Your task to perform on an android device: change text size in settings app Image 0: 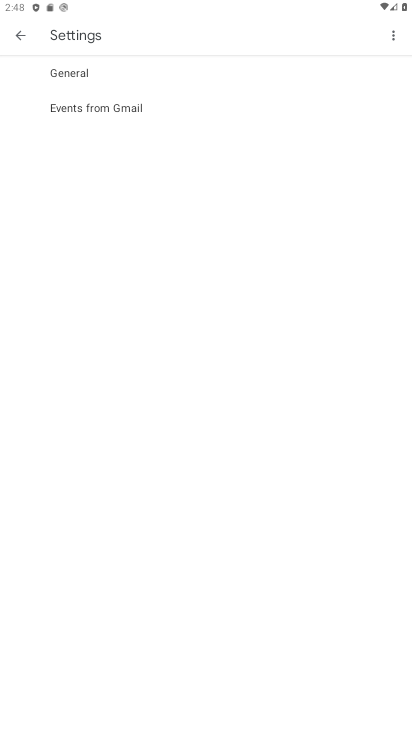
Step 0: press home button
Your task to perform on an android device: change text size in settings app Image 1: 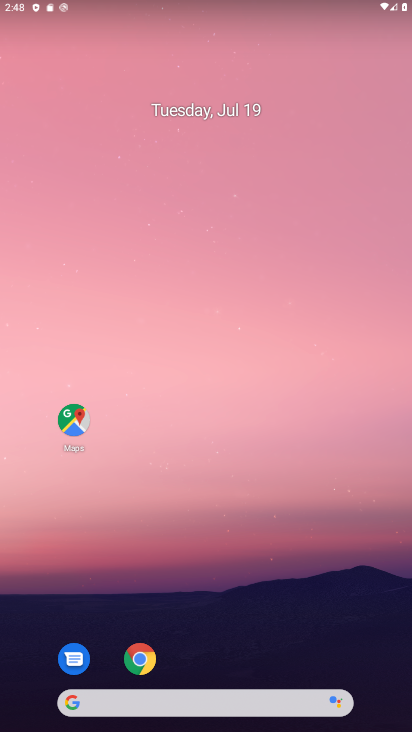
Step 1: drag from (262, 615) to (222, 43)
Your task to perform on an android device: change text size in settings app Image 2: 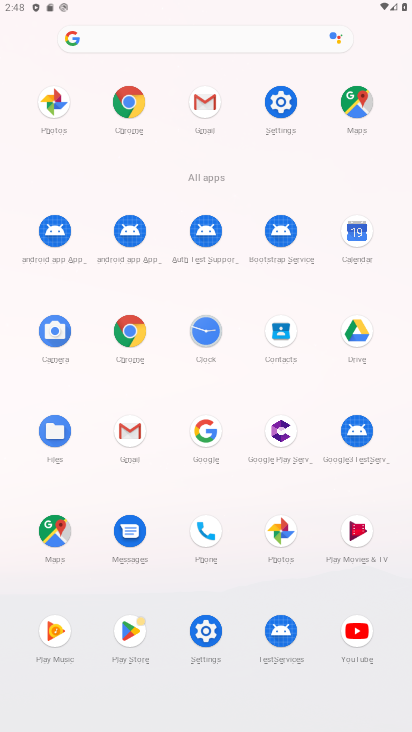
Step 2: click (269, 91)
Your task to perform on an android device: change text size in settings app Image 3: 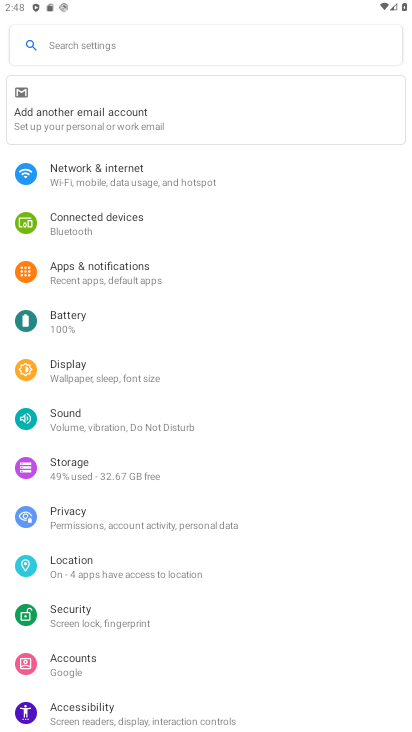
Step 3: click (90, 375)
Your task to perform on an android device: change text size in settings app Image 4: 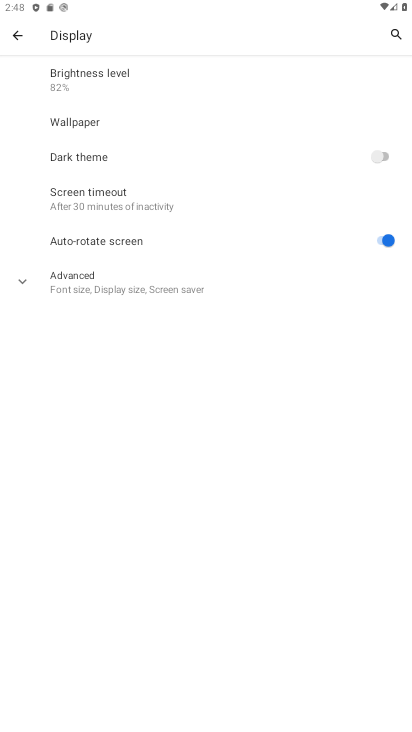
Step 4: click (125, 286)
Your task to perform on an android device: change text size in settings app Image 5: 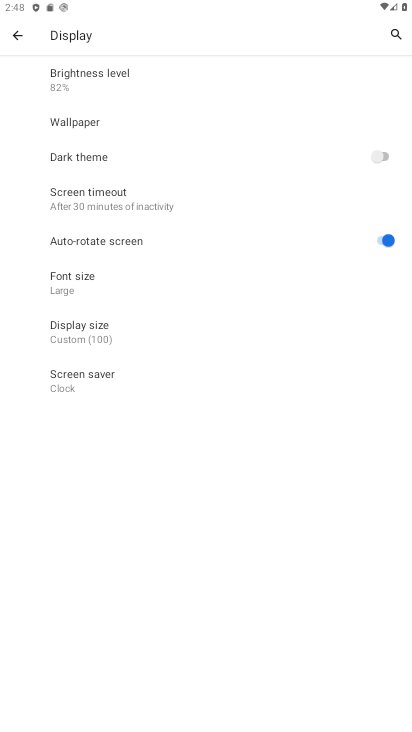
Step 5: click (58, 281)
Your task to perform on an android device: change text size in settings app Image 6: 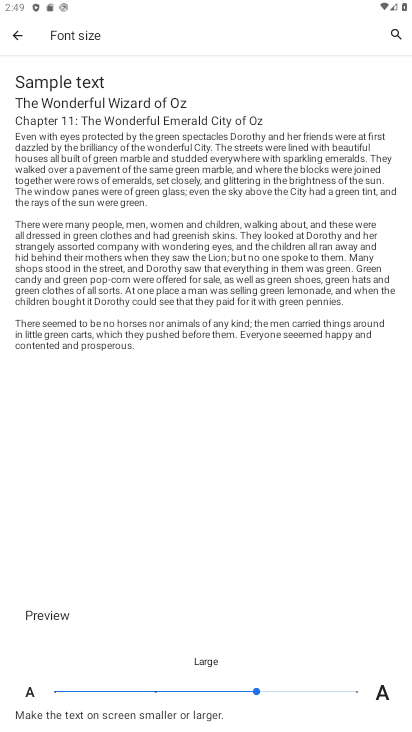
Step 6: click (354, 691)
Your task to perform on an android device: change text size in settings app Image 7: 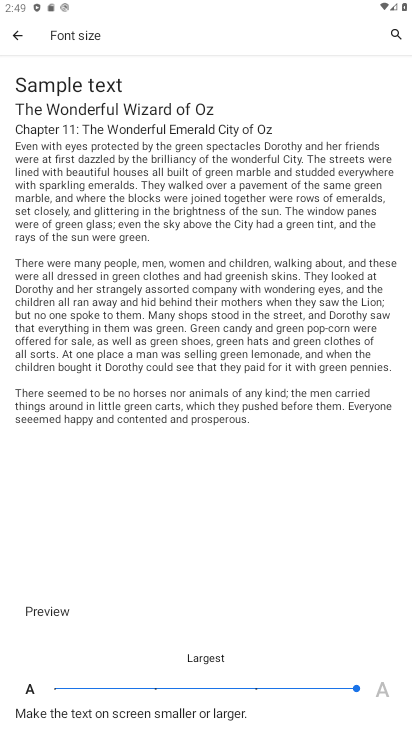
Step 7: task complete